Your task to perform on an android device: Go to Maps Image 0: 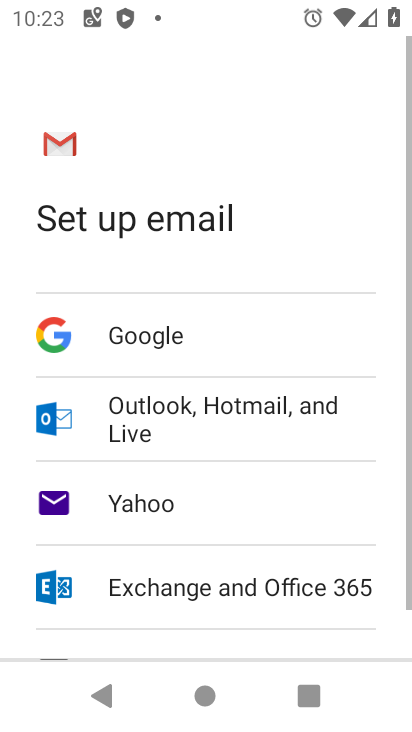
Step 0: press home button
Your task to perform on an android device: Go to Maps Image 1: 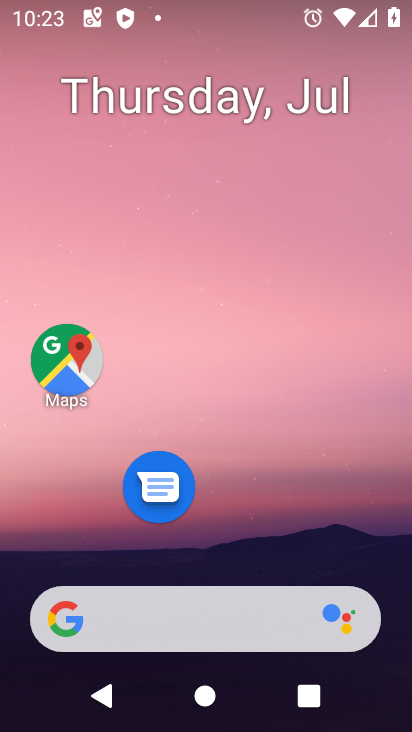
Step 1: drag from (239, 573) to (258, 110)
Your task to perform on an android device: Go to Maps Image 2: 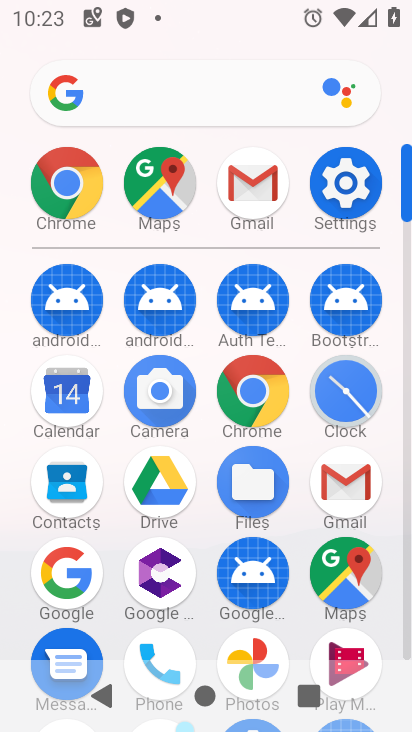
Step 2: click (348, 573)
Your task to perform on an android device: Go to Maps Image 3: 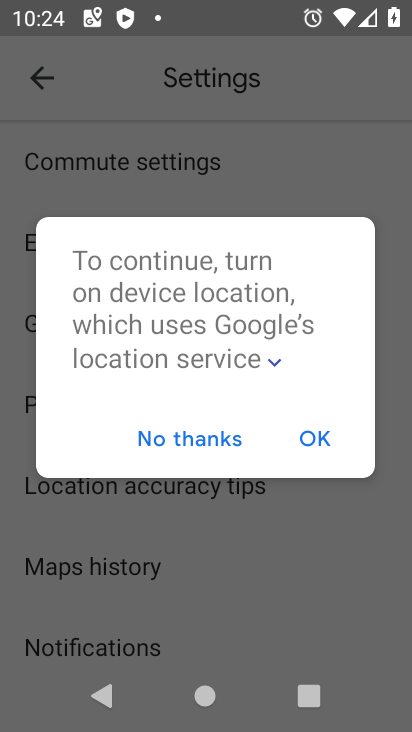
Step 3: press home button
Your task to perform on an android device: Go to Maps Image 4: 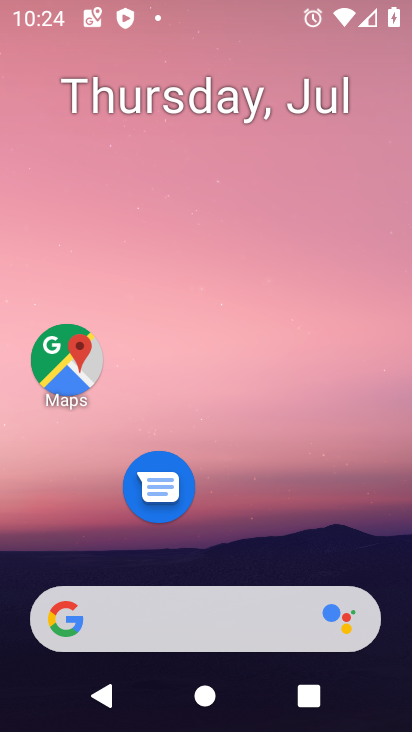
Step 4: drag from (184, 613) to (212, 28)
Your task to perform on an android device: Go to Maps Image 5: 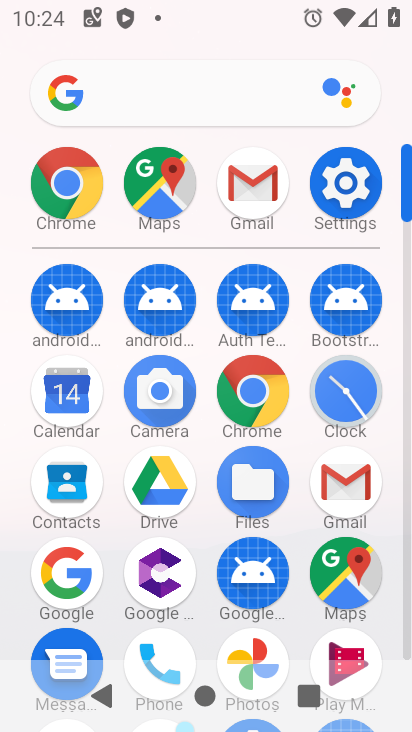
Step 5: click (366, 590)
Your task to perform on an android device: Go to Maps Image 6: 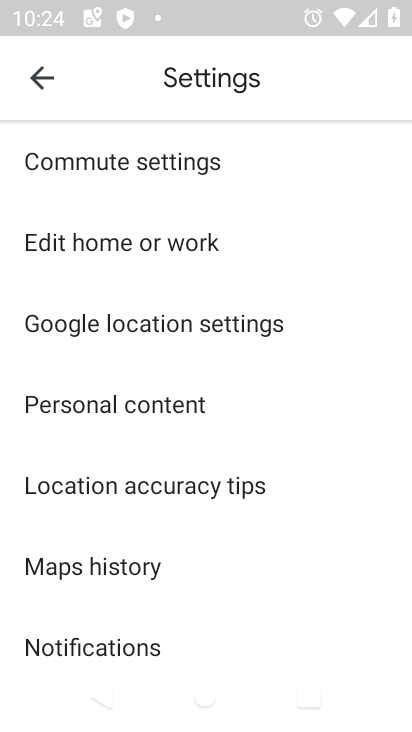
Step 6: click (50, 85)
Your task to perform on an android device: Go to Maps Image 7: 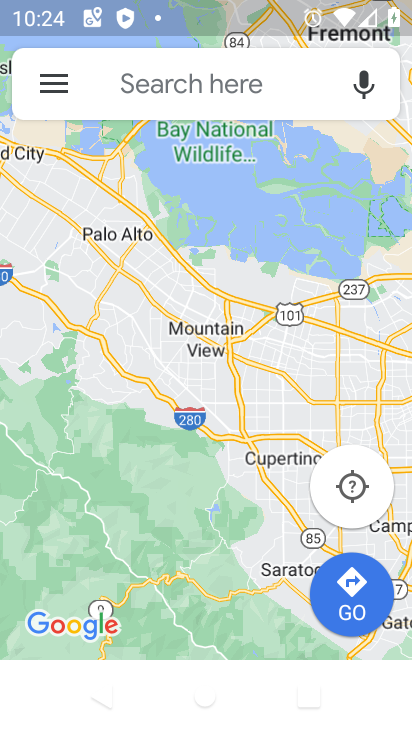
Step 7: task complete